Your task to perform on an android device: Go to wifi settings Image 0: 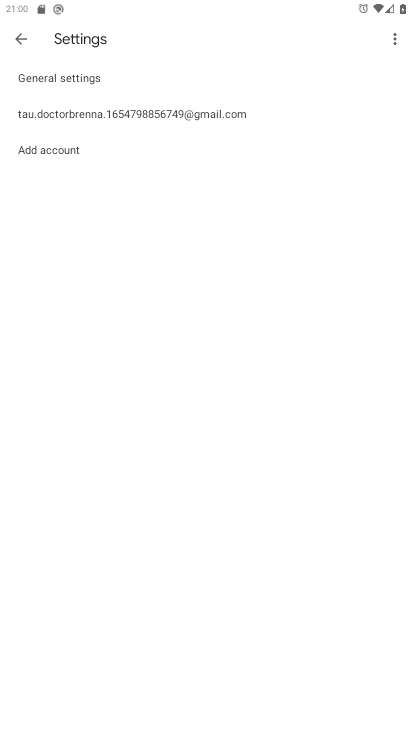
Step 0: press home button
Your task to perform on an android device: Go to wifi settings Image 1: 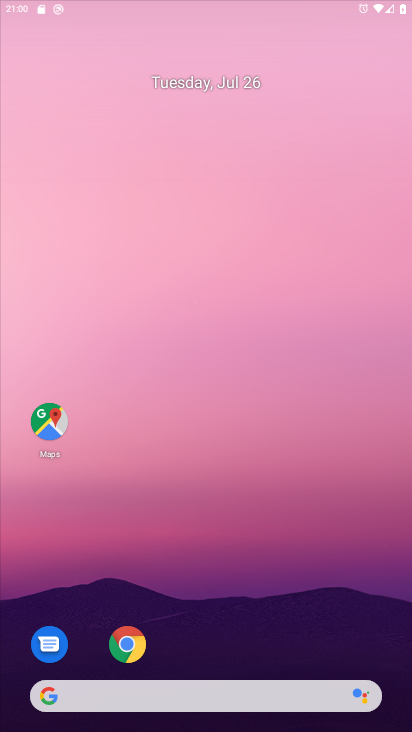
Step 1: drag from (264, 624) to (257, 229)
Your task to perform on an android device: Go to wifi settings Image 2: 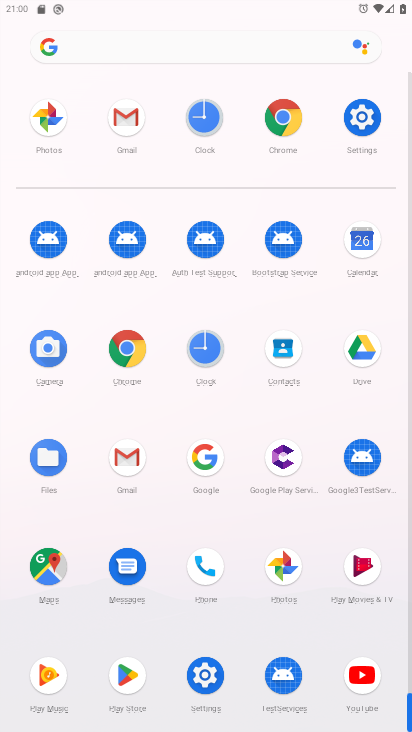
Step 2: click (361, 112)
Your task to perform on an android device: Go to wifi settings Image 3: 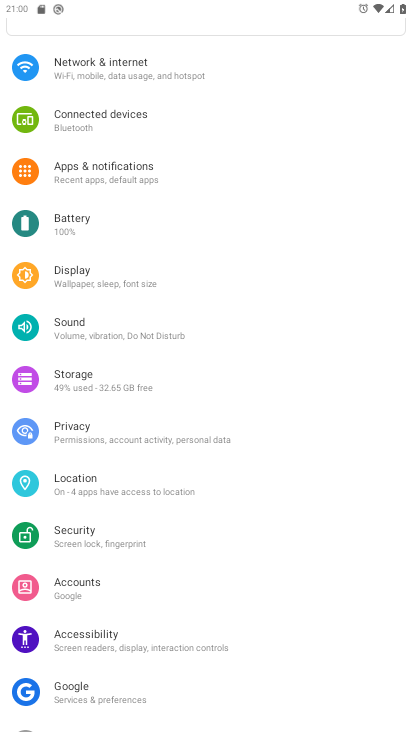
Step 3: click (83, 65)
Your task to perform on an android device: Go to wifi settings Image 4: 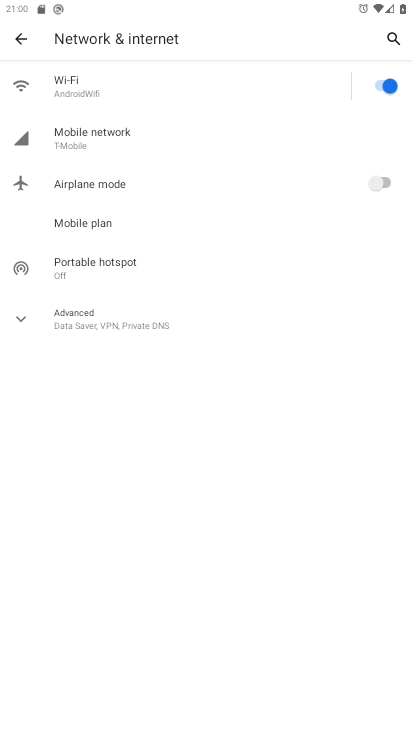
Step 4: click (94, 88)
Your task to perform on an android device: Go to wifi settings Image 5: 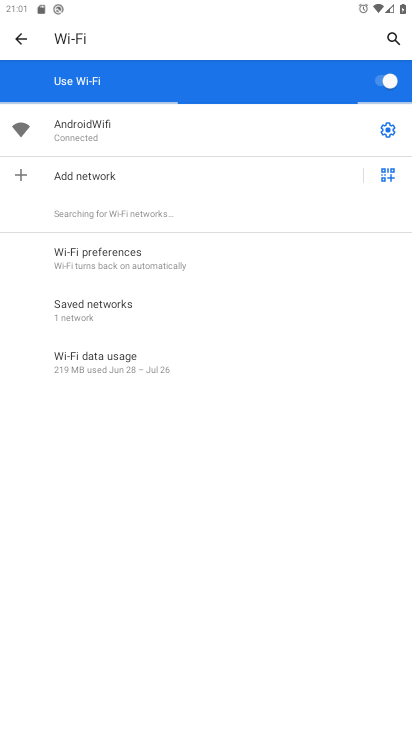
Step 5: task complete